Your task to perform on an android device: When is my next meeting? Image 0: 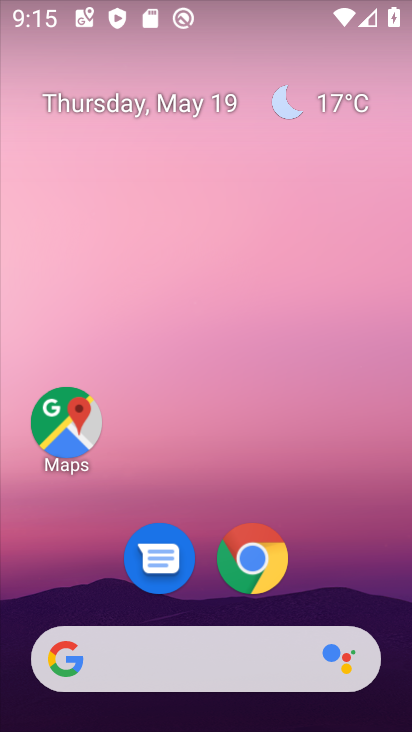
Step 0: drag from (194, 722) to (194, 95)
Your task to perform on an android device: When is my next meeting? Image 1: 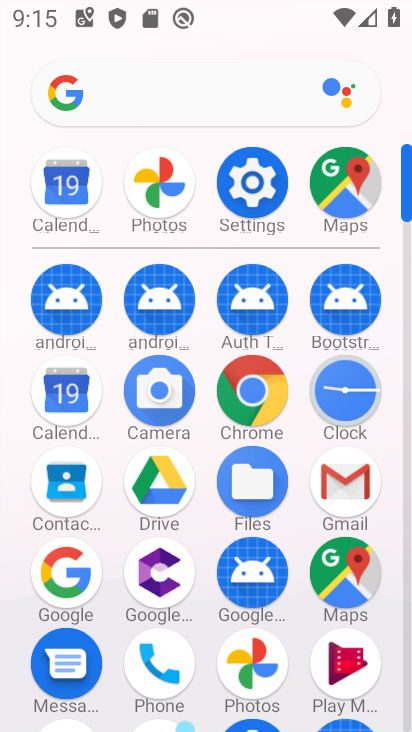
Step 1: click (67, 390)
Your task to perform on an android device: When is my next meeting? Image 2: 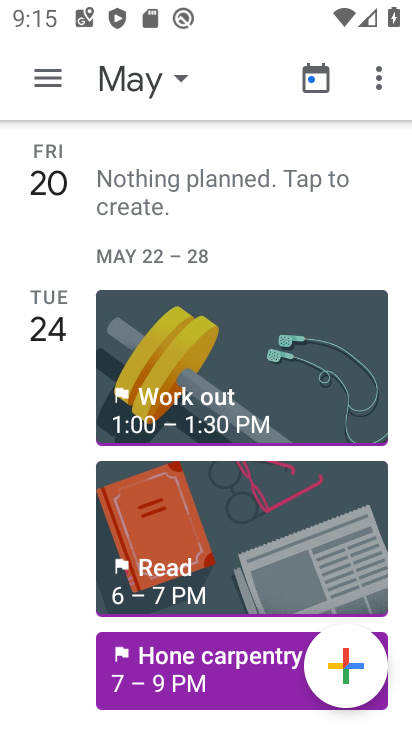
Step 2: click (143, 82)
Your task to perform on an android device: When is my next meeting? Image 3: 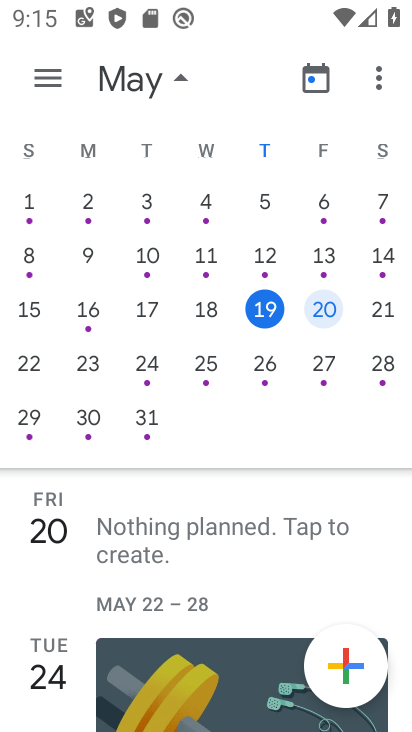
Step 3: click (332, 316)
Your task to perform on an android device: When is my next meeting? Image 4: 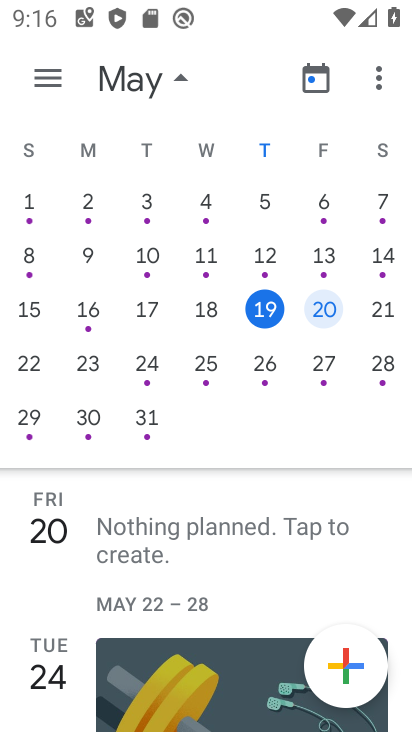
Step 4: click (322, 304)
Your task to perform on an android device: When is my next meeting? Image 5: 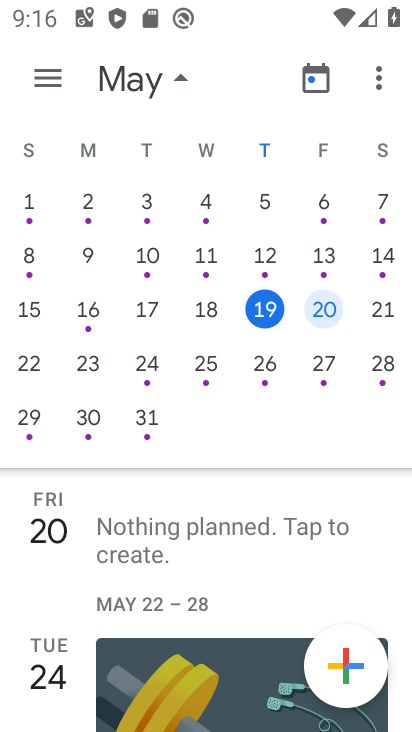
Step 5: click (175, 77)
Your task to perform on an android device: When is my next meeting? Image 6: 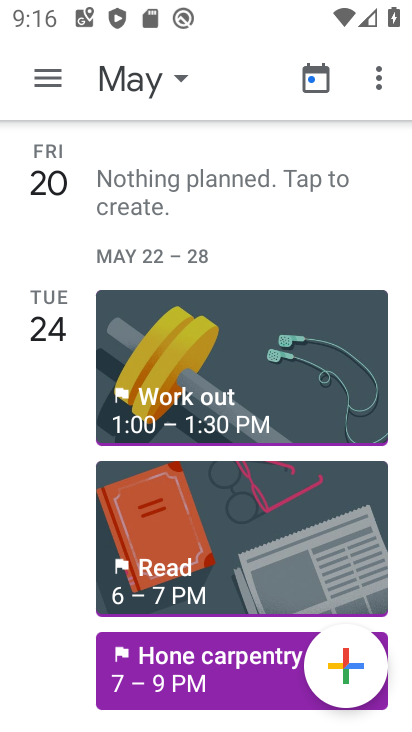
Step 6: task complete